Your task to perform on an android device: turn on the 12-hour format for clock Image 0: 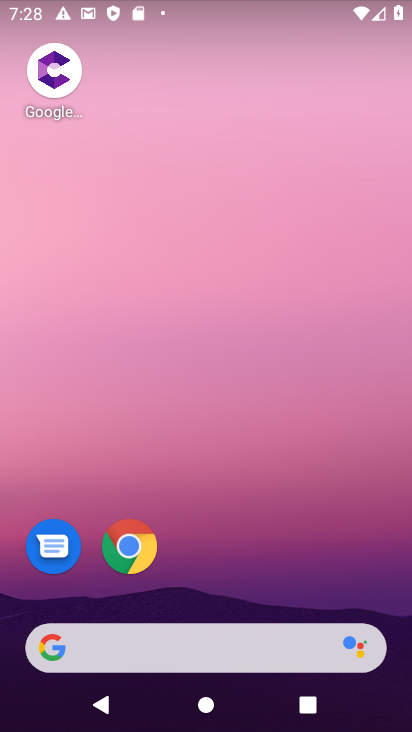
Step 0: drag from (227, 548) to (214, 0)
Your task to perform on an android device: turn on the 12-hour format for clock Image 1: 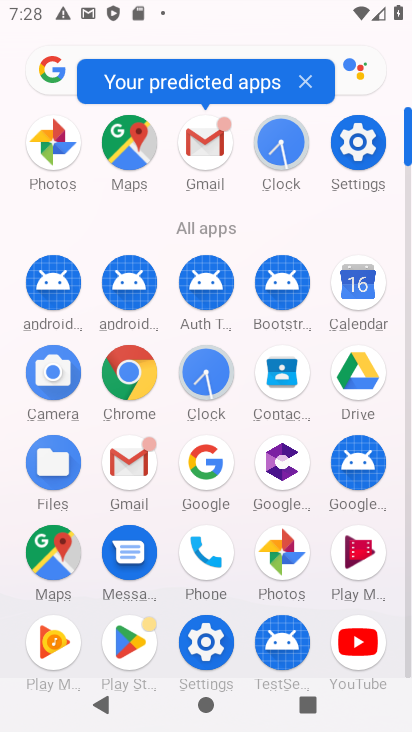
Step 1: click (287, 148)
Your task to perform on an android device: turn on the 12-hour format for clock Image 2: 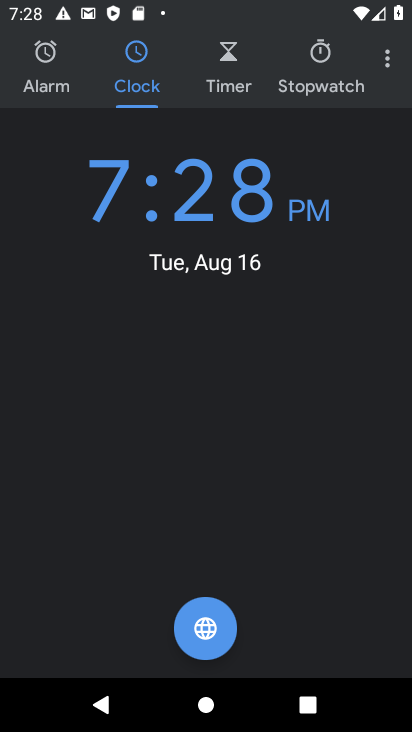
Step 2: task complete